Your task to perform on an android device: empty trash in the gmail app Image 0: 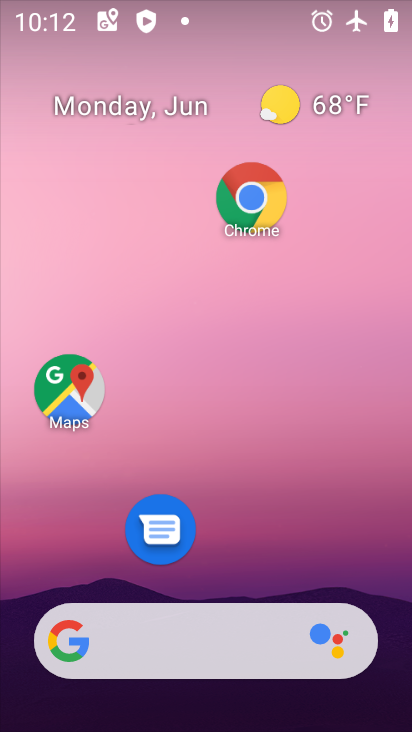
Step 0: drag from (233, 567) to (233, 118)
Your task to perform on an android device: empty trash in the gmail app Image 1: 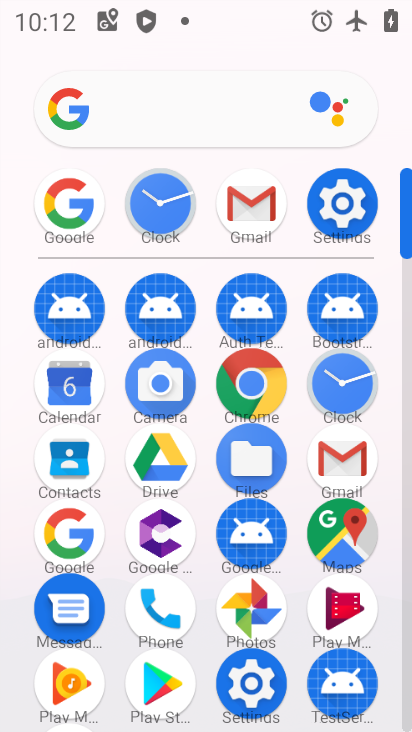
Step 1: click (253, 219)
Your task to perform on an android device: empty trash in the gmail app Image 2: 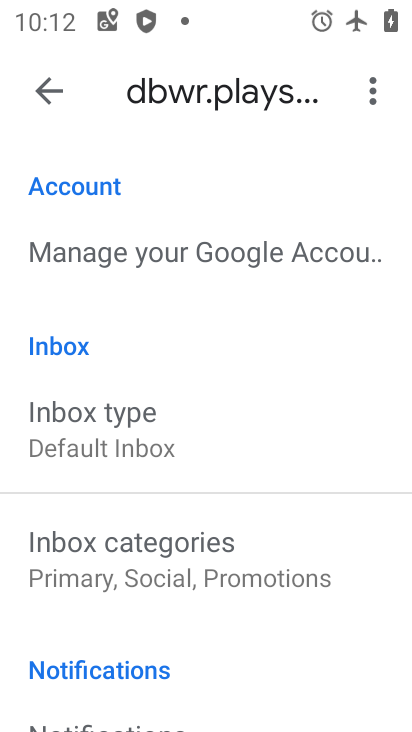
Step 2: click (43, 98)
Your task to perform on an android device: empty trash in the gmail app Image 3: 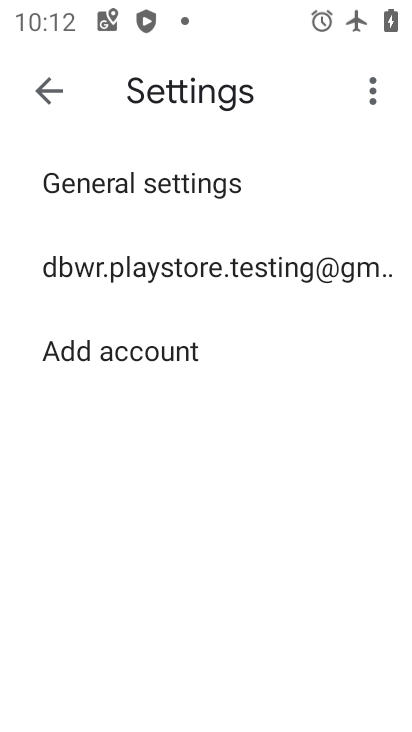
Step 3: click (43, 98)
Your task to perform on an android device: empty trash in the gmail app Image 4: 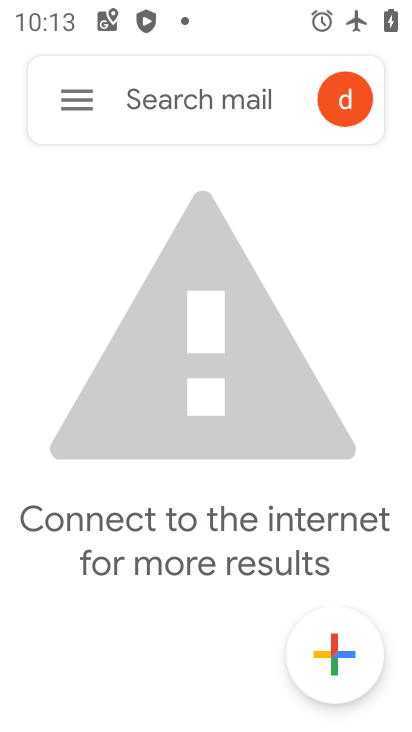
Step 4: click (47, 97)
Your task to perform on an android device: empty trash in the gmail app Image 5: 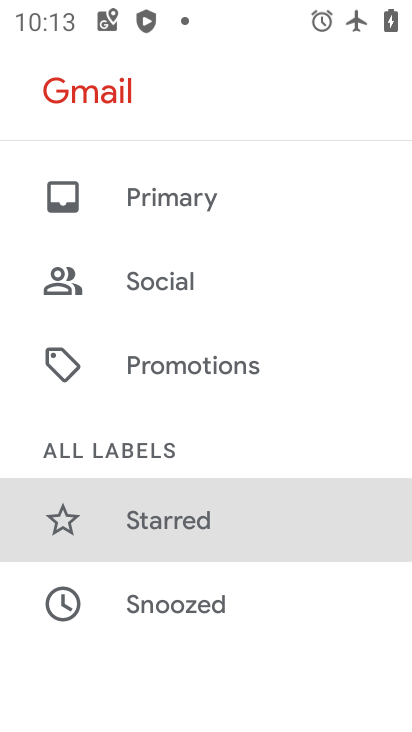
Step 5: drag from (224, 528) to (277, 234)
Your task to perform on an android device: empty trash in the gmail app Image 6: 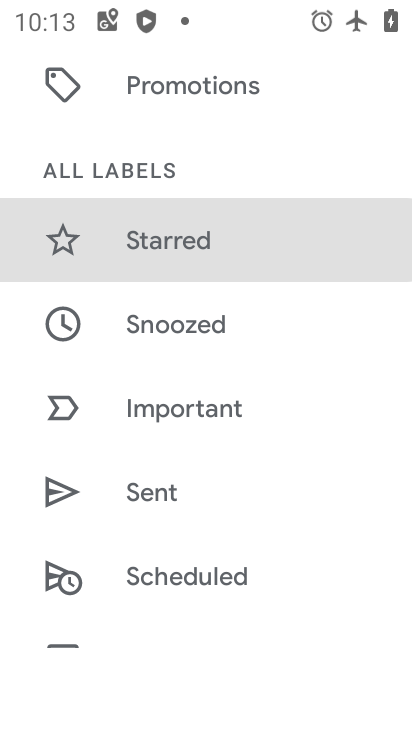
Step 6: drag from (201, 565) to (250, 203)
Your task to perform on an android device: empty trash in the gmail app Image 7: 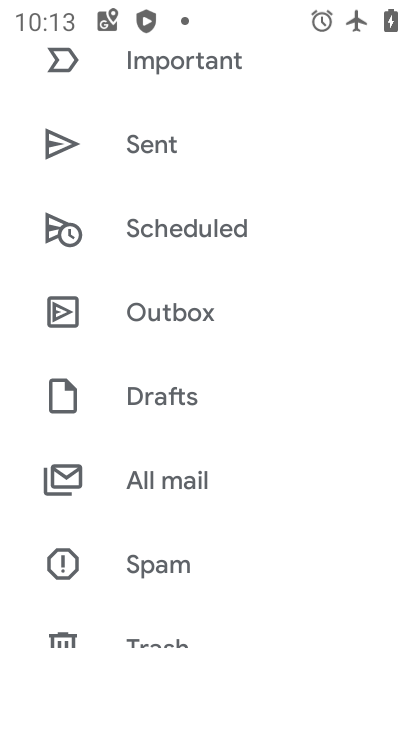
Step 7: drag from (201, 586) to (246, 283)
Your task to perform on an android device: empty trash in the gmail app Image 8: 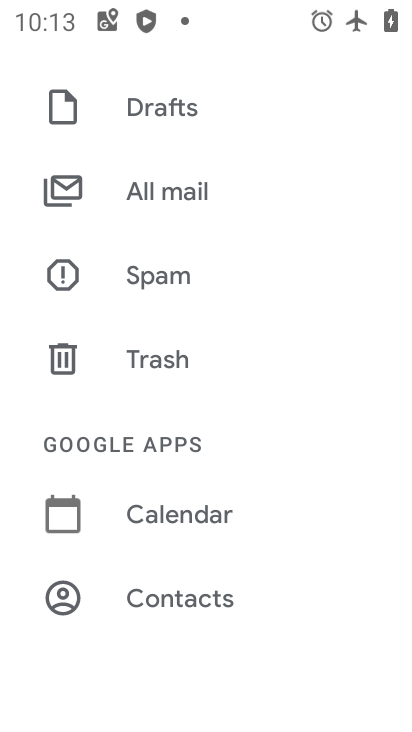
Step 8: drag from (237, 537) to (227, 229)
Your task to perform on an android device: empty trash in the gmail app Image 9: 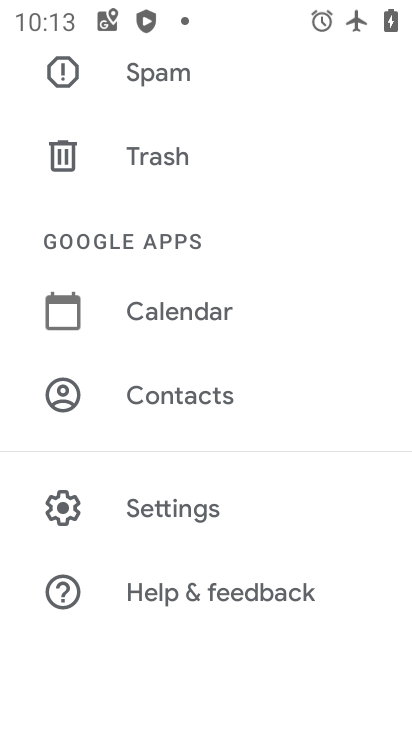
Step 9: click (182, 166)
Your task to perform on an android device: empty trash in the gmail app Image 10: 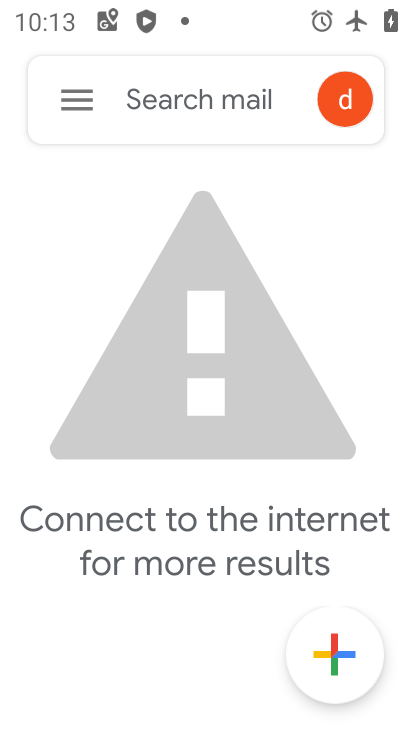
Step 10: task complete